Your task to perform on an android device: check out phone information Image 0: 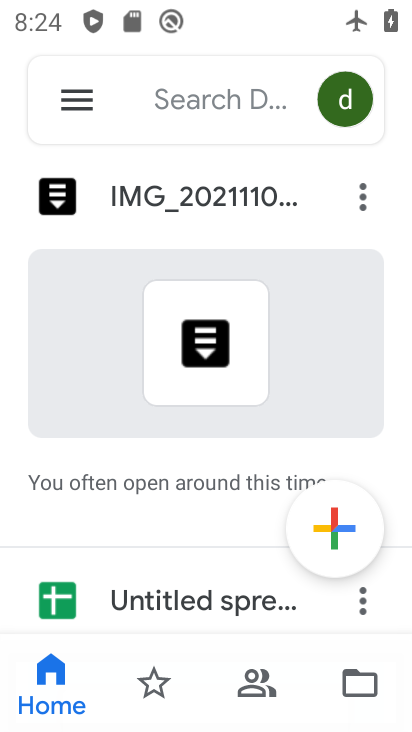
Step 0: press home button
Your task to perform on an android device: check out phone information Image 1: 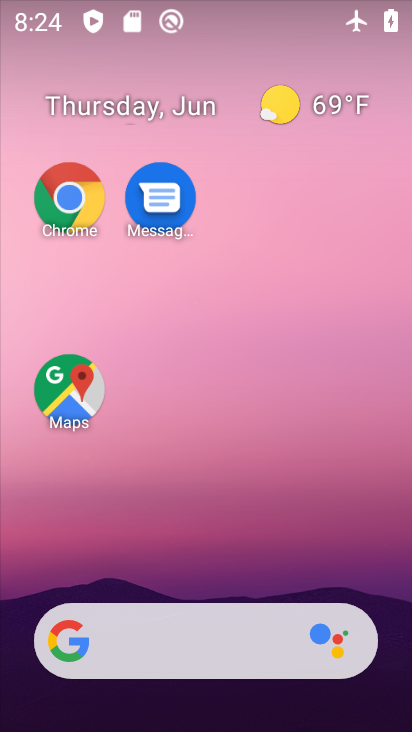
Step 1: drag from (274, 590) to (228, 116)
Your task to perform on an android device: check out phone information Image 2: 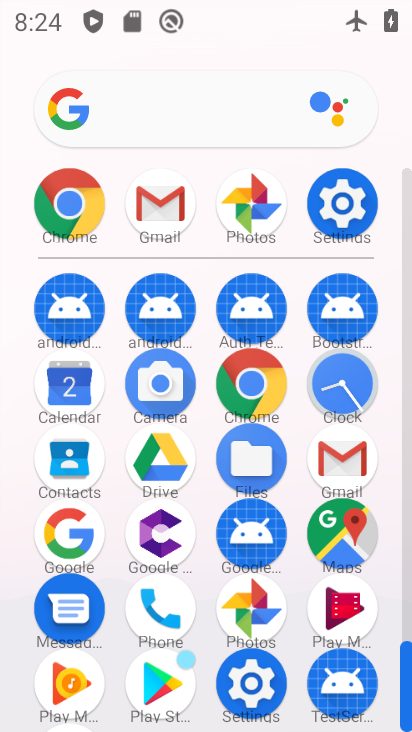
Step 2: click (339, 192)
Your task to perform on an android device: check out phone information Image 3: 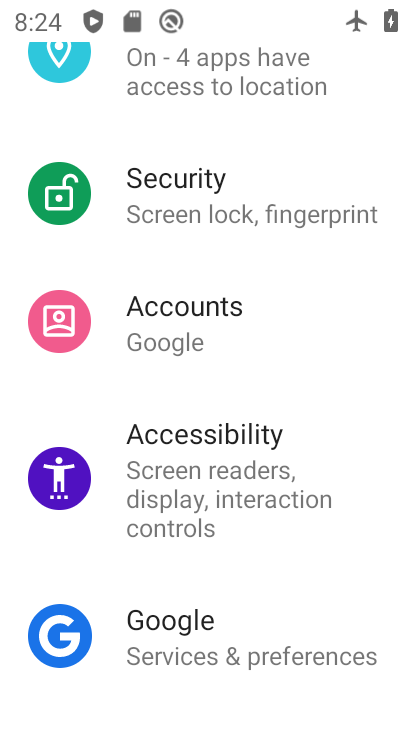
Step 3: drag from (248, 578) to (282, 28)
Your task to perform on an android device: check out phone information Image 4: 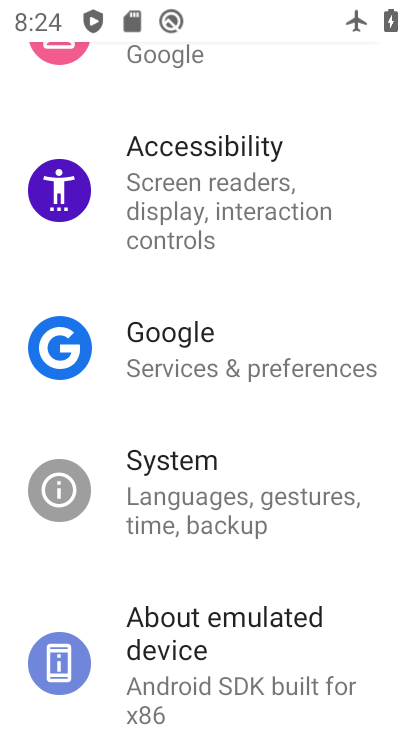
Step 4: click (199, 665)
Your task to perform on an android device: check out phone information Image 5: 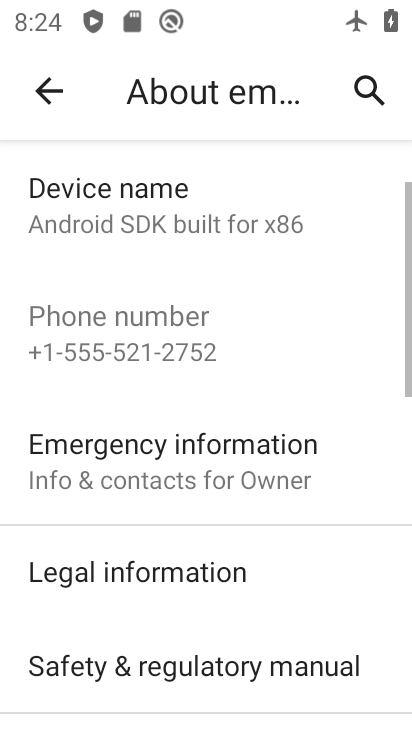
Step 5: task complete